Your task to perform on an android device: Open Youtube and go to the subscriptions tab Image 0: 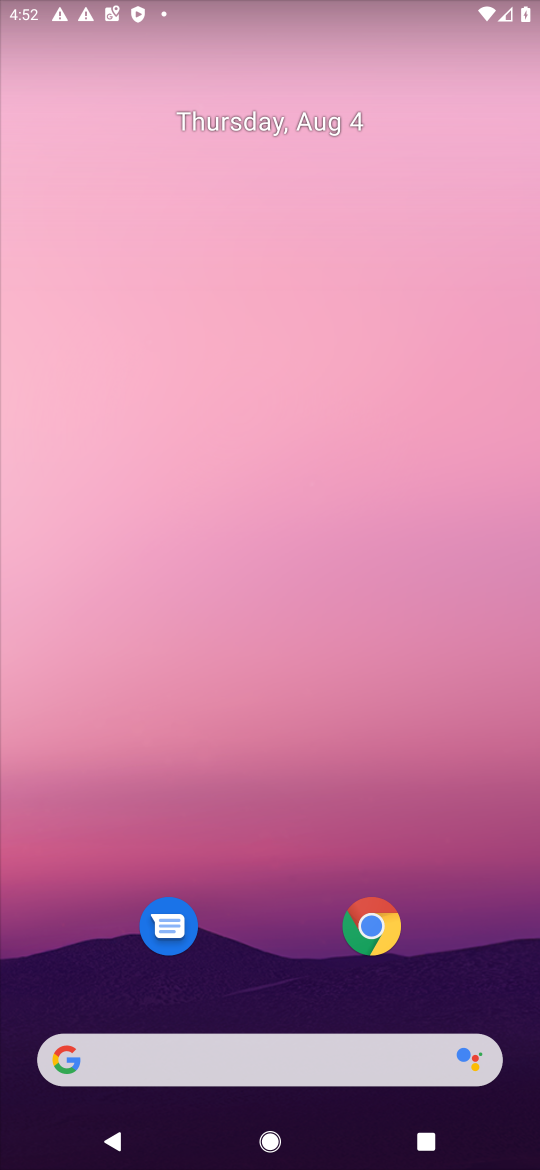
Step 0: press home button
Your task to perform on an android device: Open Youtube and go to the subscriptions tab Image 1: 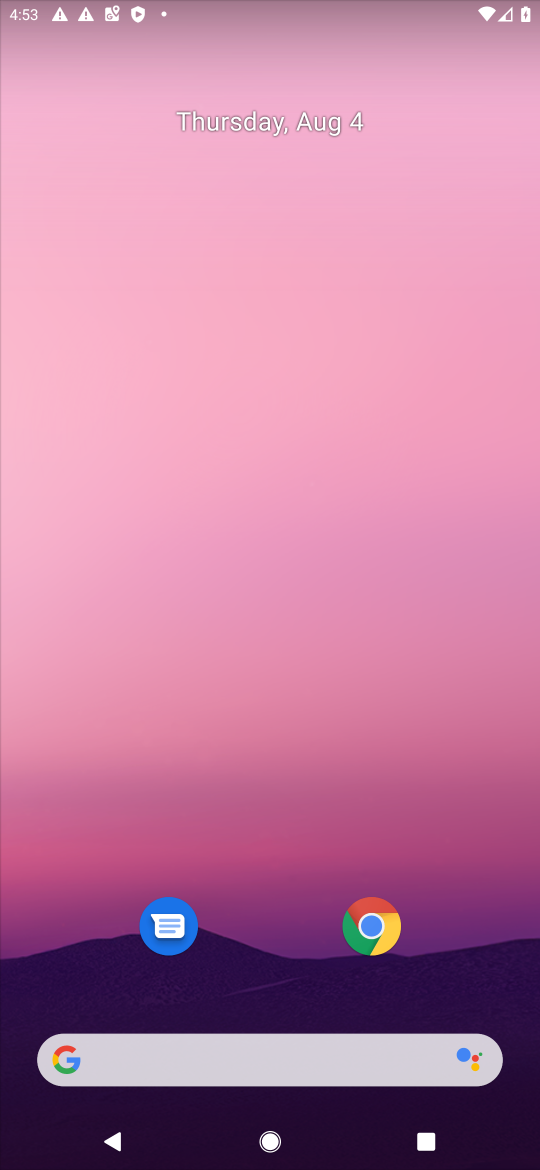
Step 1: drag from (295, 1025) to (334, 218)
Your task to perform on an android device: Open Youtube and go to the subscriptions tab Image 2: 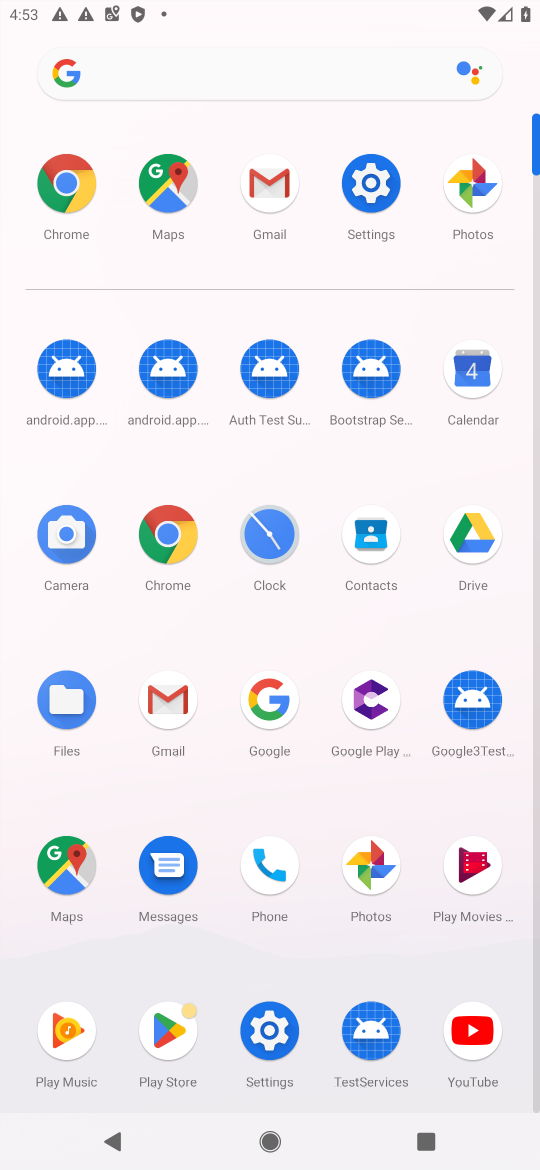
Step 2: click (466, 1025)
Your task to perform on an android device: Open Youtube and go to the subscriptions tab Image 3: 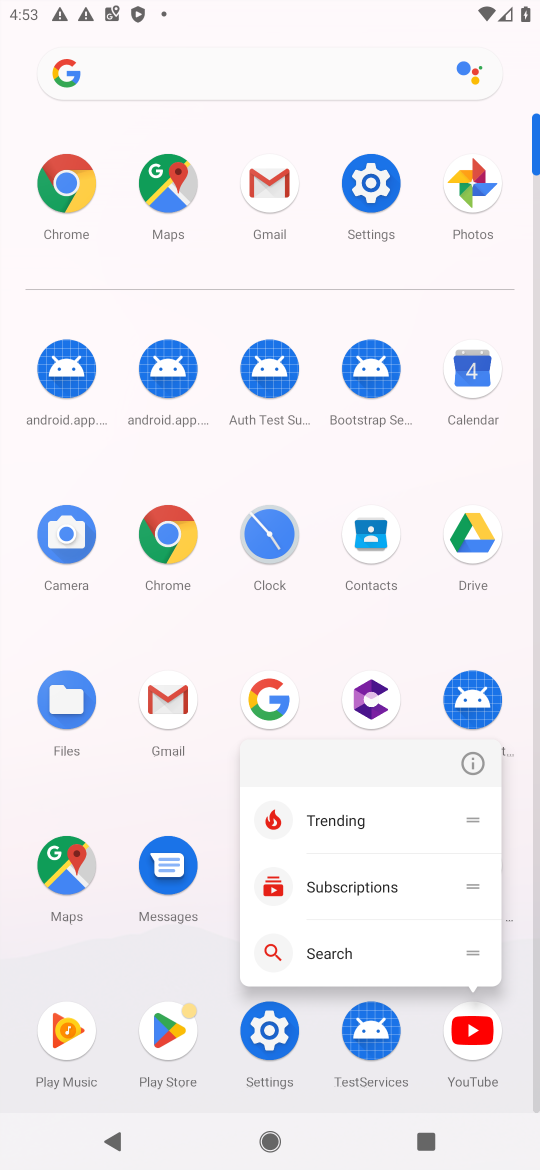
Step 3: click (469, 1032)
Your task to perform on an android device: Open Youtube and go to the subscriptions tab Image 4: 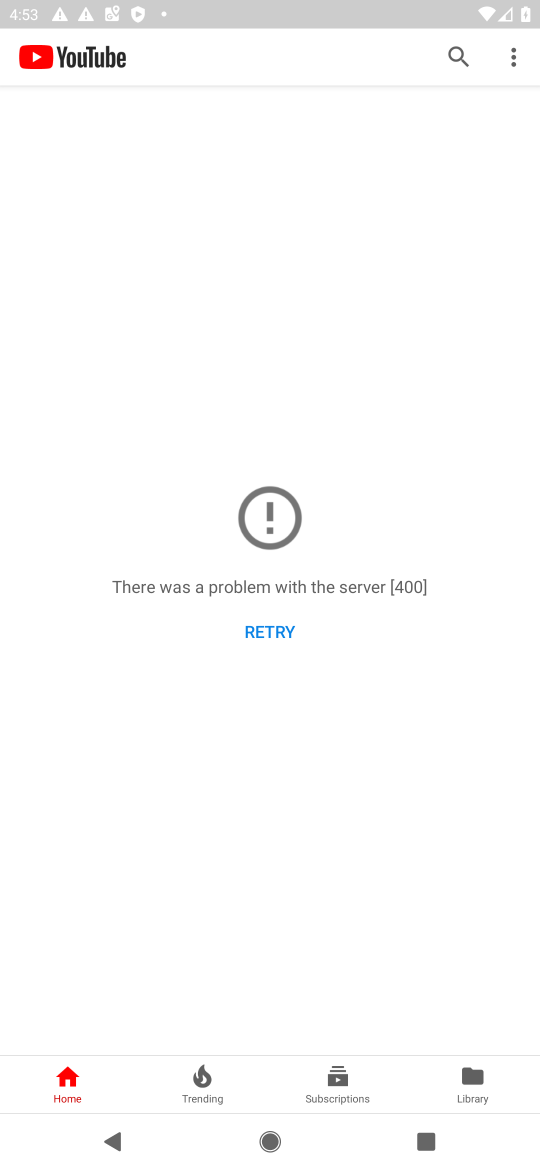
Step 4: click (330, 1072)
Your task to perform on an android device: Open Youtube and go to the subscriptions tab Image 5: 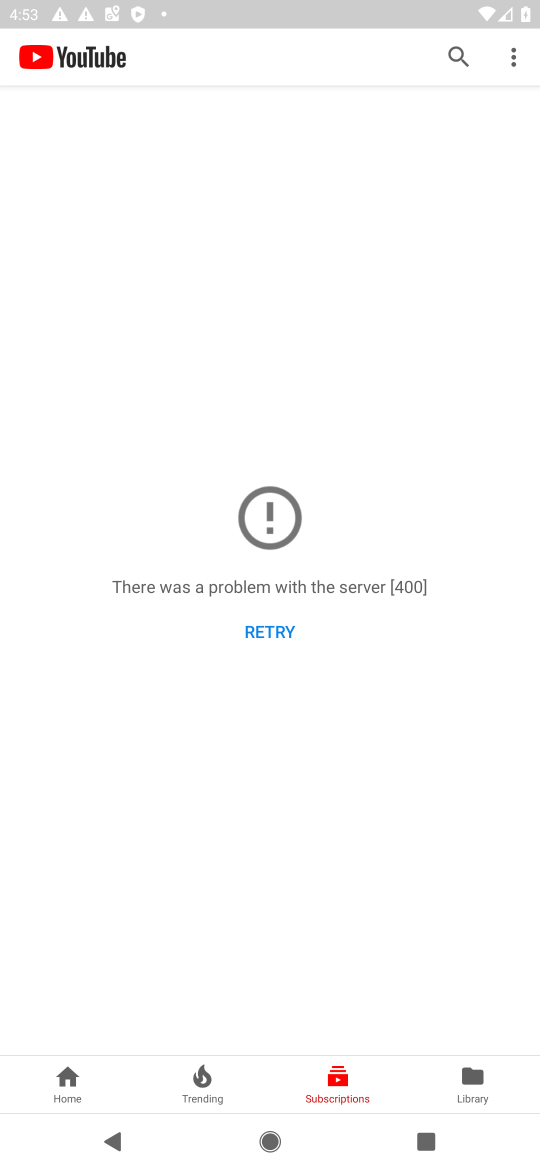
Step 5: task complete